Your task to perform on an android device: What's the weather today? Image 0: 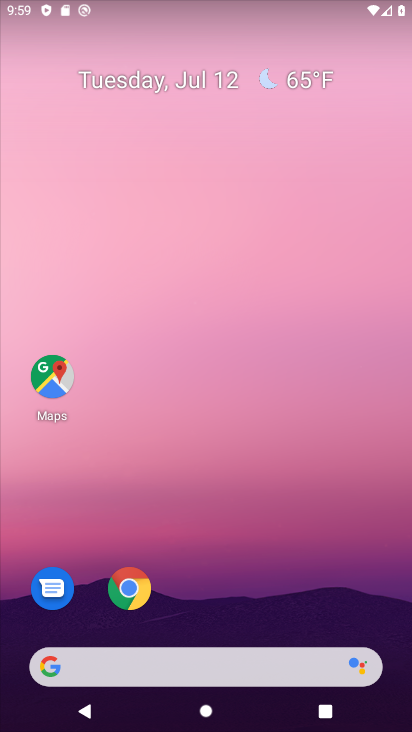
Step 0: click (142, 657)
Your task to perform on an android device: What's the weather today? Image 1: 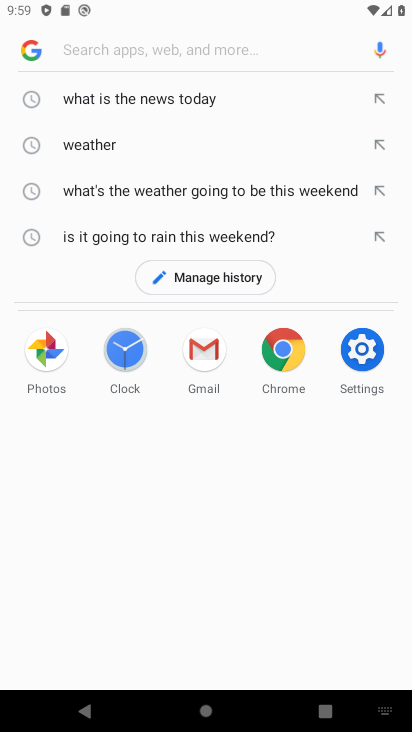
Step 1: type "What's the weather today?"
Your task to perform on an android device: What's the weather today? Image 2: 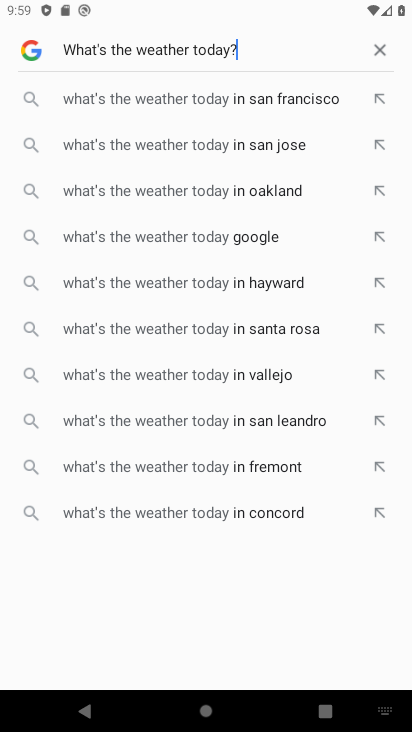
Step 2: type ""
Your task to perform on an android device: What's the weather today? Image 3: 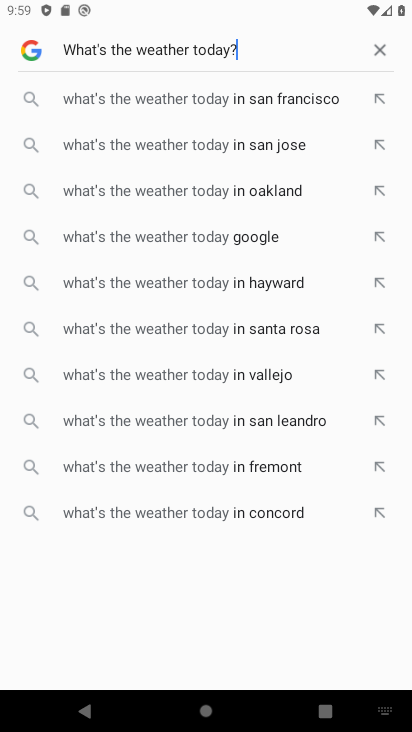
Step 3: task complete